Your task to perform on an android device: Check the news Image 0: 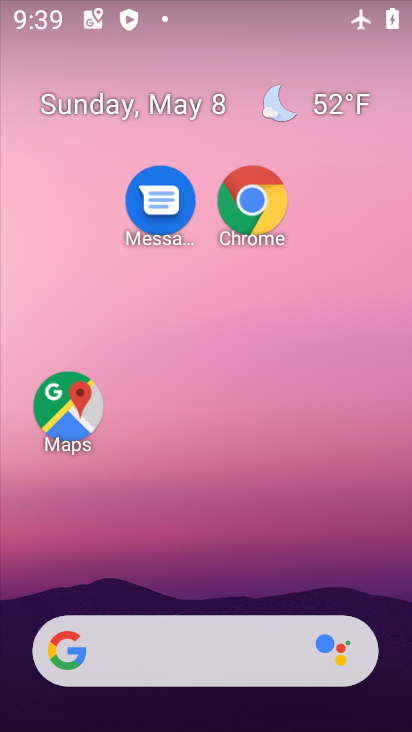
Step 0: click (185, 648)
Your task to perform on an android device: Check the news Image 1: 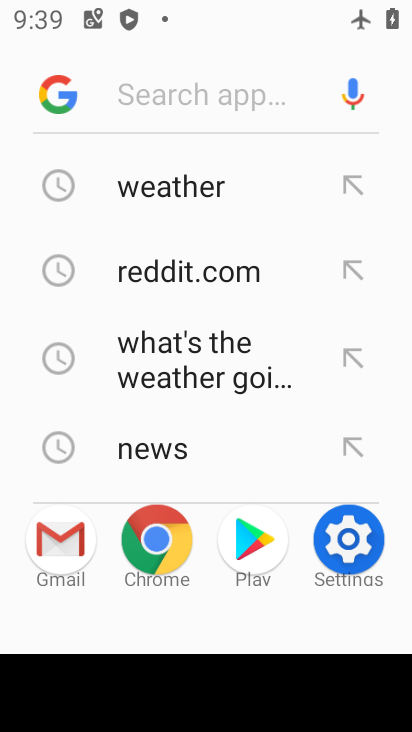
Step 1: click (188, 455)
Your task to perform on an android device: Check the news Image 2: 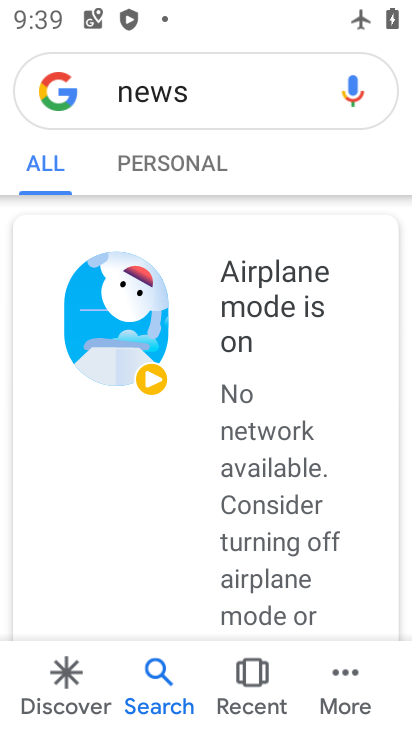
Step 2: task complete